Your task to perform on an android device: Open display settings Image 0: 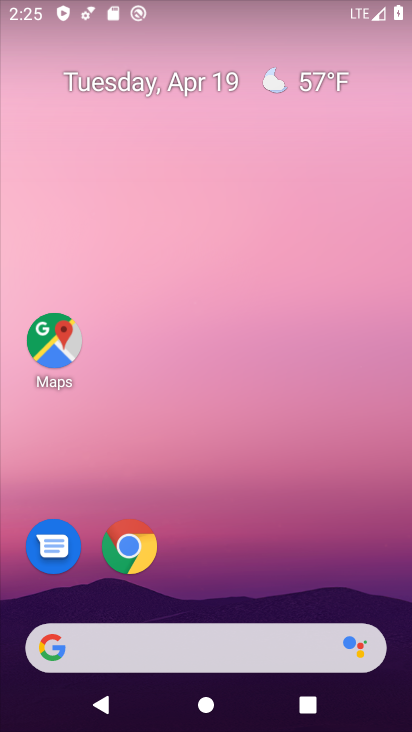
Step 0: drag from (294, 666) to (224, 59)
Your task to perform on an android device: Open display settings Image 1: 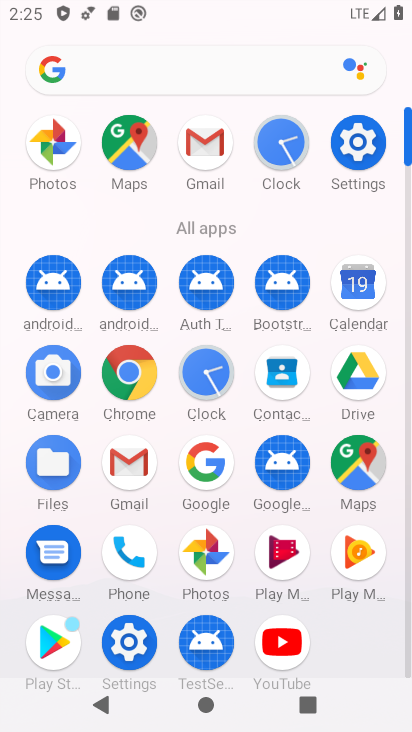
Step 1: click (357, 151)
Your task to perform on an android device: Open display settings Image 2: 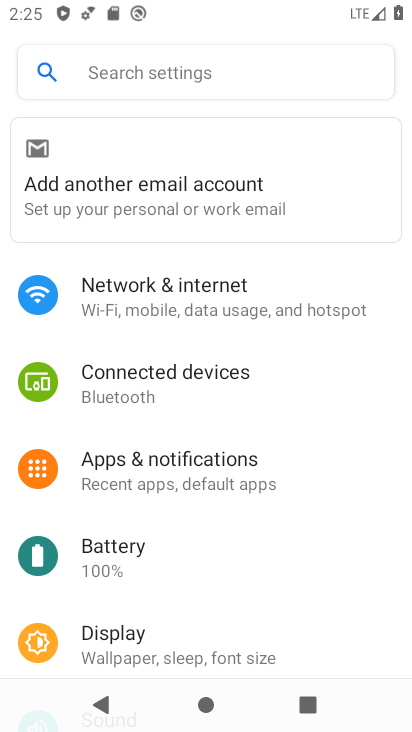
Step 2: click (162, 654)
Your task to perform on an android device: Open display settings Image 3: 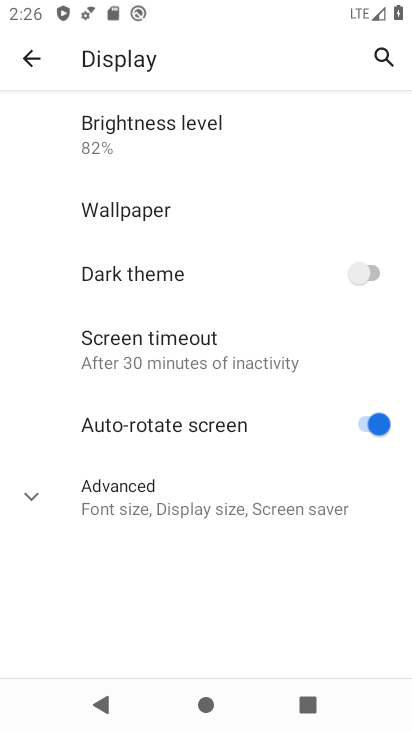
Step 3: click (157, 518)
Your task to perform on an android device: Open display settings Image 4: 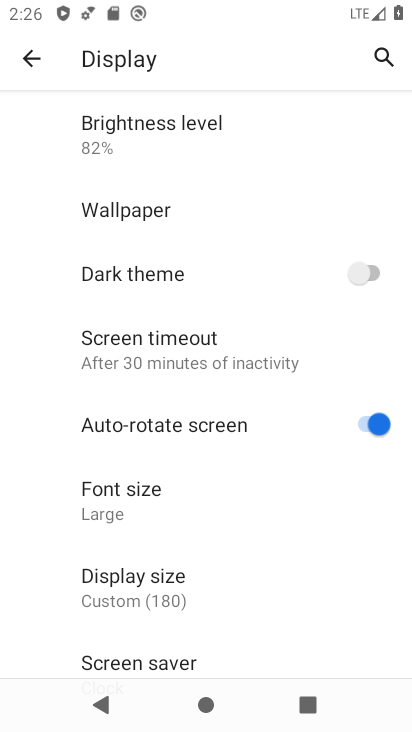
Step 4: task complete